Your task to perform on an android device: Show me productivity apps on the Play Store Image 0: 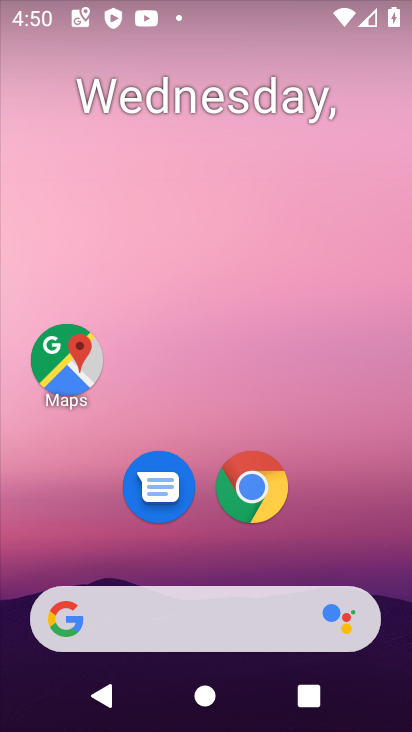
Step 0: drag from (190, 586) to (251, 107)
Your task to perform on an android device: Show me productivity apps on the Play Store Image 1: 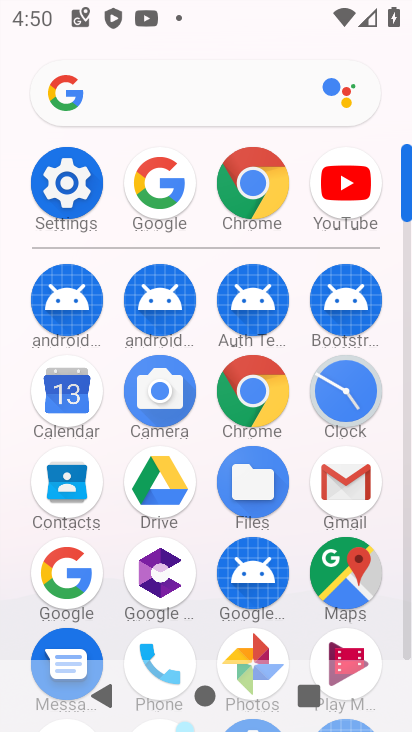
Step 1: drag from (214, 514) to (256, 139)
Your task to perform on an android device: Show me productivity apps on the Play Store Image 2: 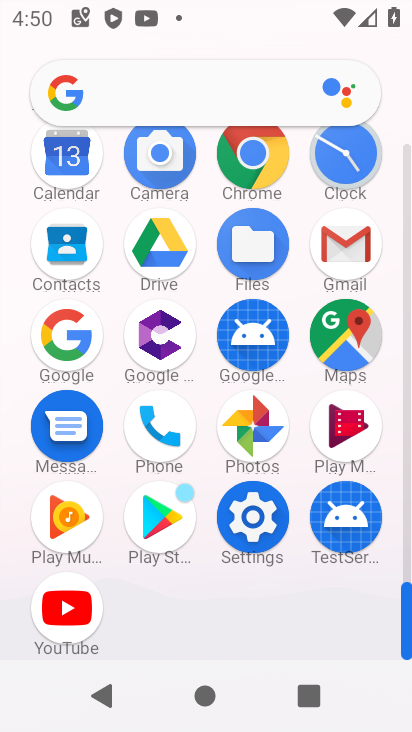
Step 2: click (175, 518)
Your task to perform on an android device: Show me productivity apps on the Play Store Image 3: 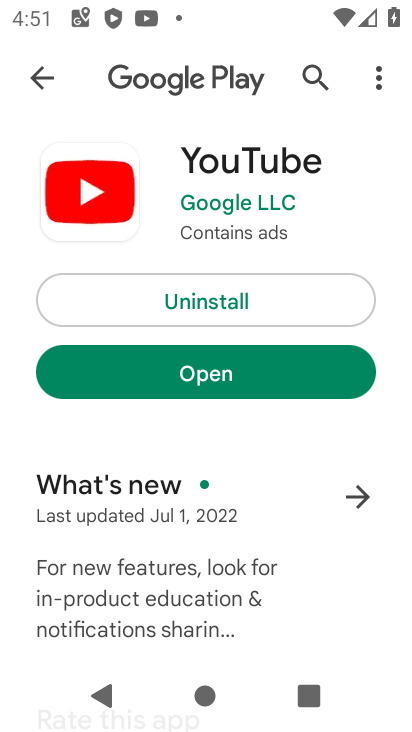
Step 3: click (49, 55)
Your task to perform on an android device: Show me productivity apps on the Play Store Image 4: 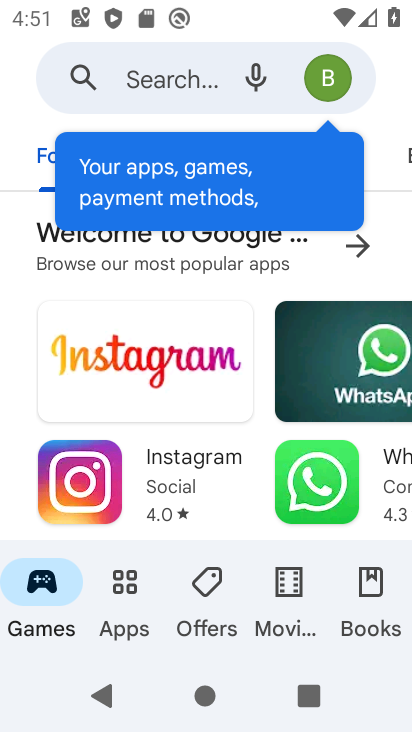
Step 4: click (170, 87)
Your task to perform on an android device: Show me productivity apps on the Play Store Image 5: 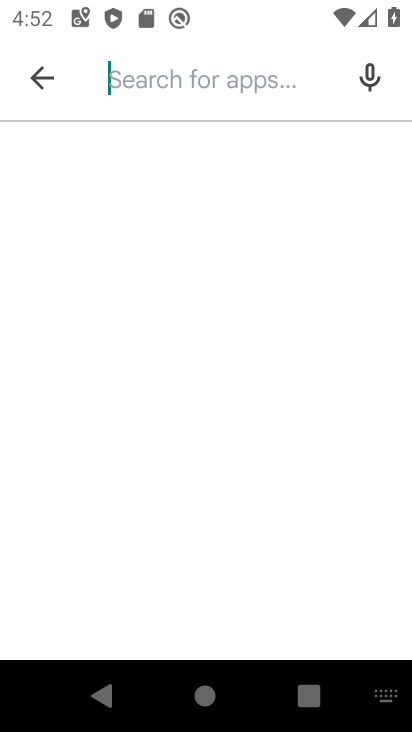
Step 5: type "productivity aaps"
Your task to perform on an android device: Show me productivity apps on the Play Store Image 6: 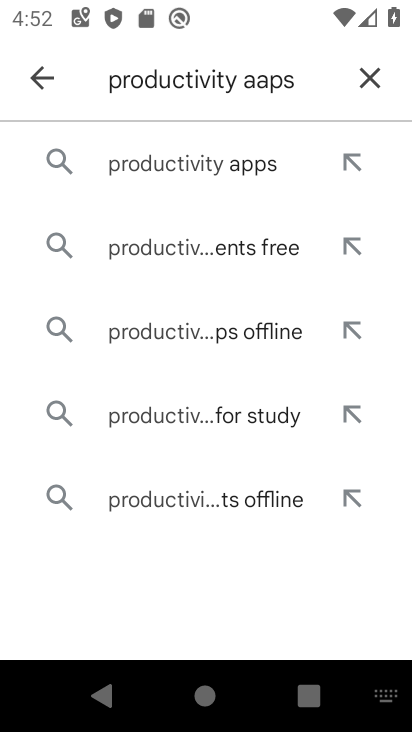
Step 6: click (218, 180)
Your task to perform on an android device: Show me productivity apps on the Play Store Image 7: 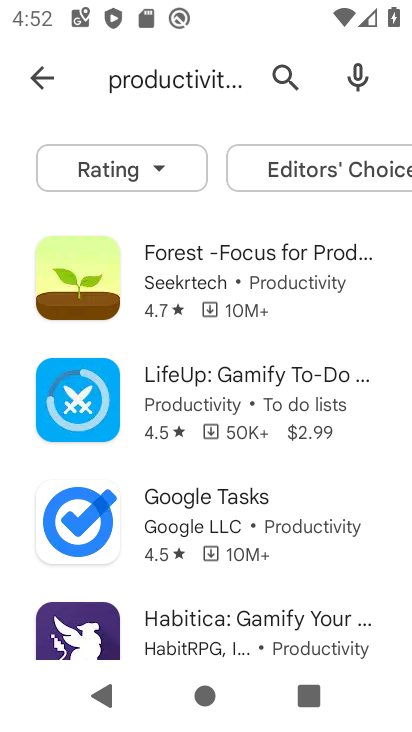
Step 7: task complete